Your task to perform on an android device: find snoozed emails in the gmail app Image 0: 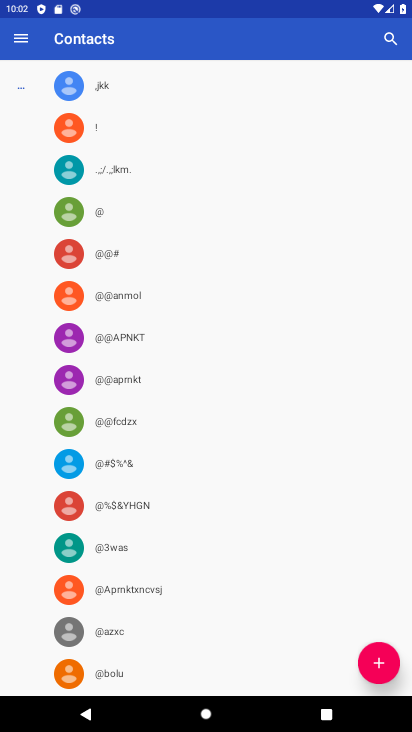
Step 0: press home button
Your task to perform on an android device: find snoozed emails in the gmail app Image 1: 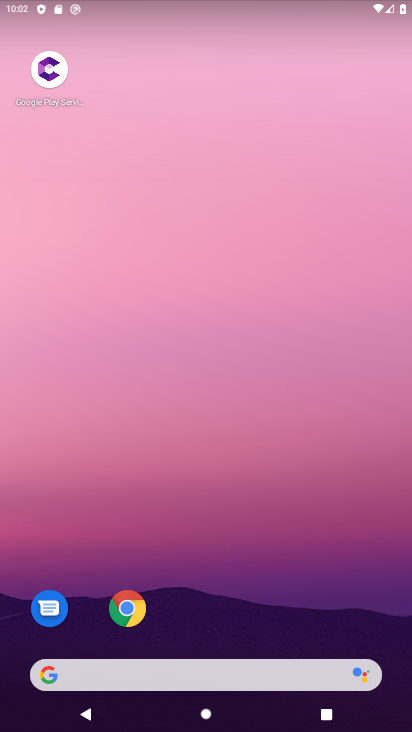
Step 1: drag from (391, 406) to (388, 238)
Your task to perform on an android device: find snoozed emails in the gmail app Image 2: 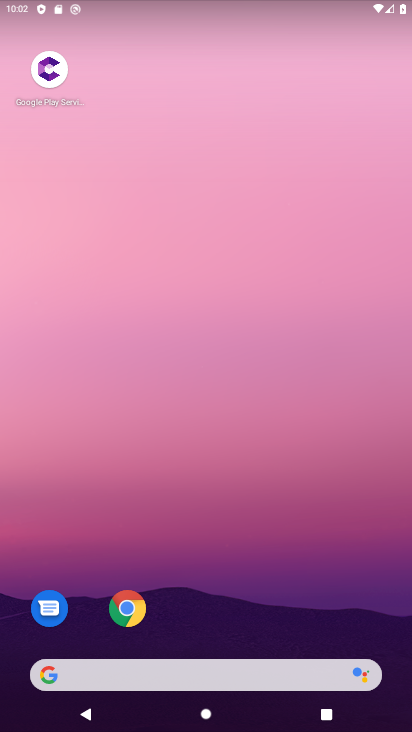
Step 2: drag from (390, 335) to (388, 256)
Your task to perform on an android device: find snoozed emails in the gmail app Image 3: 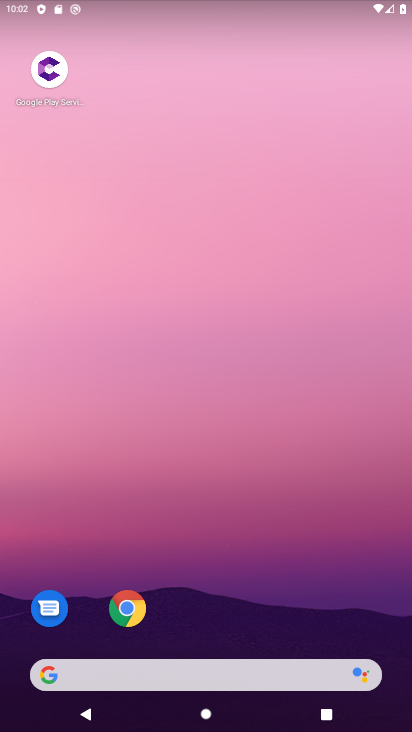
Step 3: drag from (393, 670) to (356, 98)
Your task to perform on an android device: find snoozed emails in the gmail app Image 4: 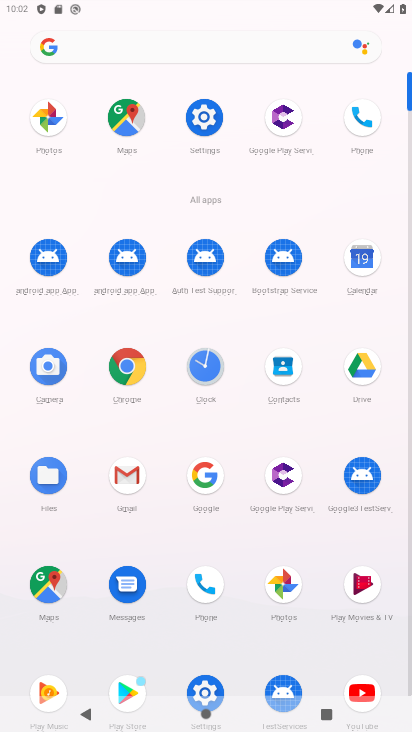
Step 4: click (127, 487)
Your task to perform on an android device: find snoozed emails in the gmail app Image 5: 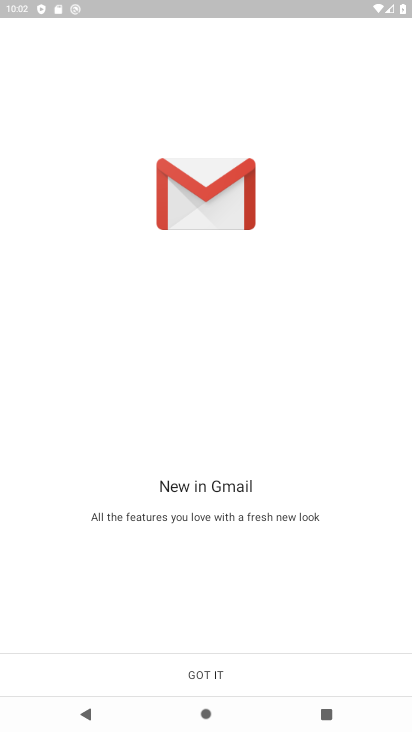
Step 5: click (206, 679)
Your task to perform on an android device: find snoozed emails in the gmail app Image 6: 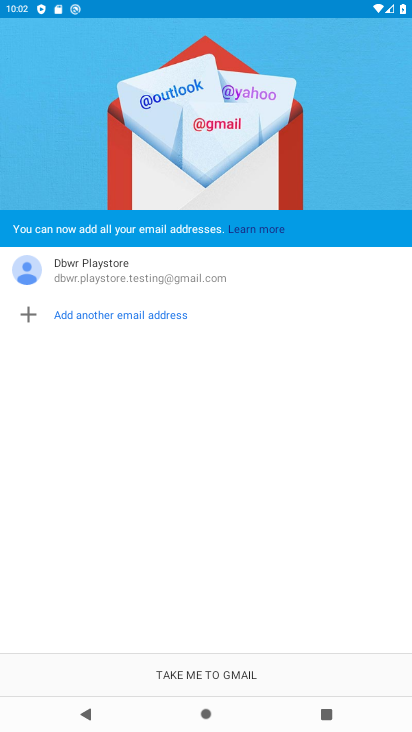
Step 6: click (206, 676)
Your task to perform on an android device: find snoozed emails in the gmail app Image 7: 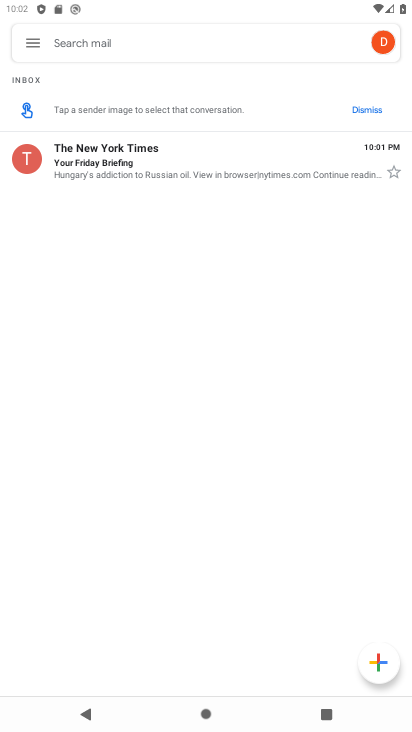
Step 7: click (36, 39)
Your task to perform on an android device: find snoozed emails in the gmail app Image 8: 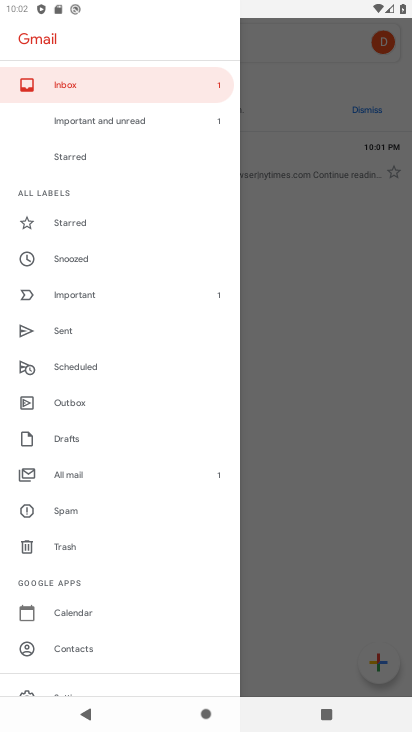
Step 8: click (60, 254)
Your task to perform on an android device: find snoozed emails in the gmail app Image 9: 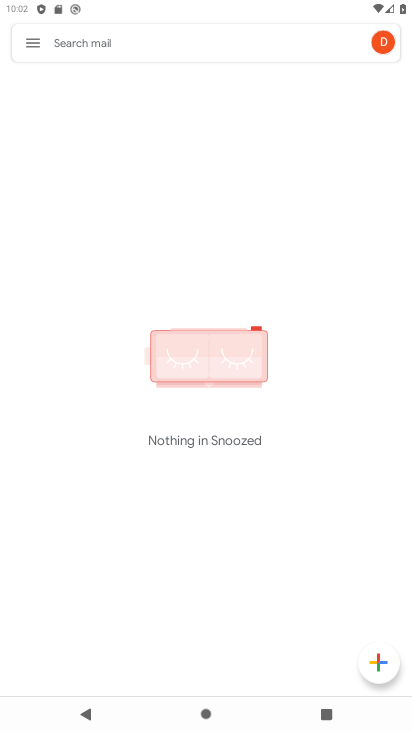
Step 9: task complete